Your task to perform on an android device: Check the news Image 0: 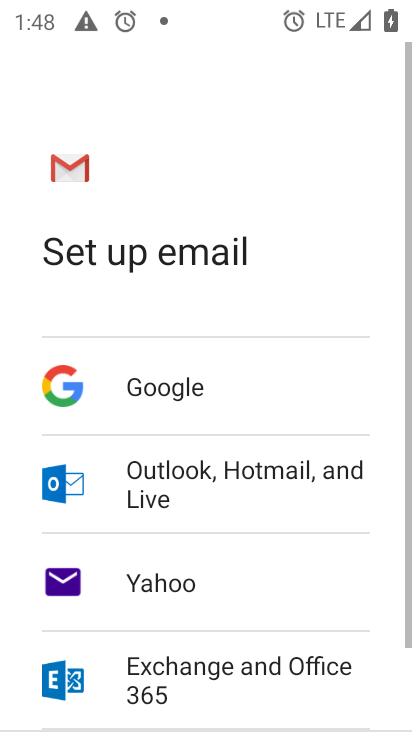
Step 0: press home button
Your task to perform on an android device: Check the news Image 1: 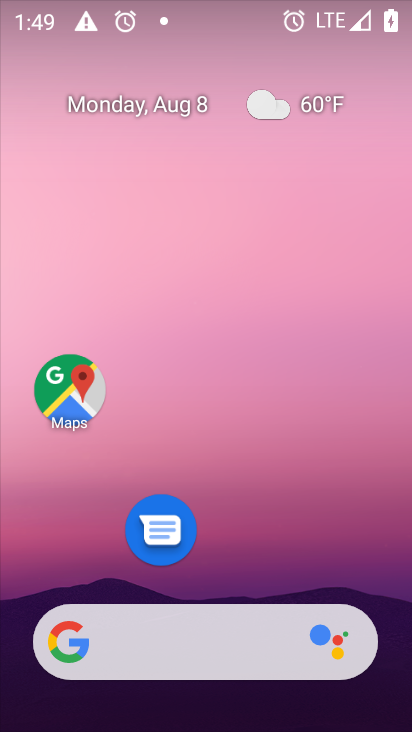
Step 1: task complete